Your task to perform on an android device: turn off notifications in google photos Image 0: 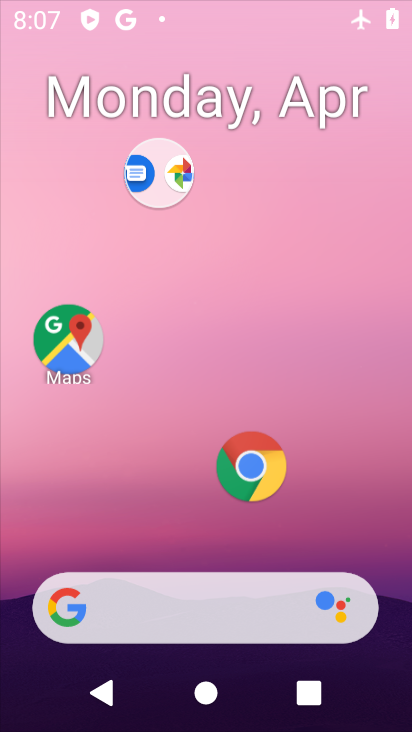
Step 0: click (178, 171)
Your task to perform on an android device: turn off notifications in google photos Image 1: 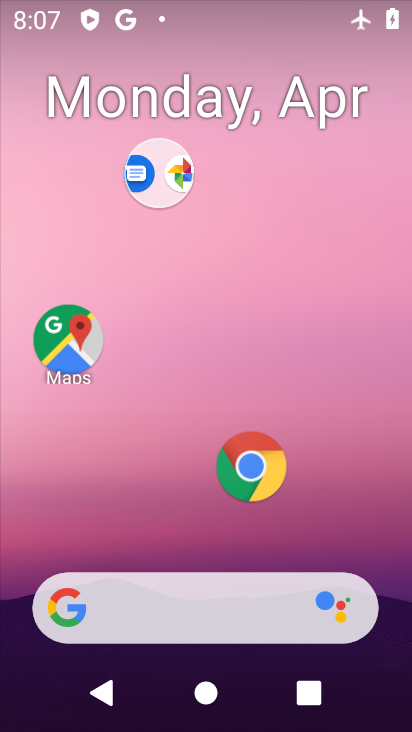
Step 1: drag from (214, 563) to (187, 140)
Your task to perform on an android device: turn off notifications in google photos Image 2: 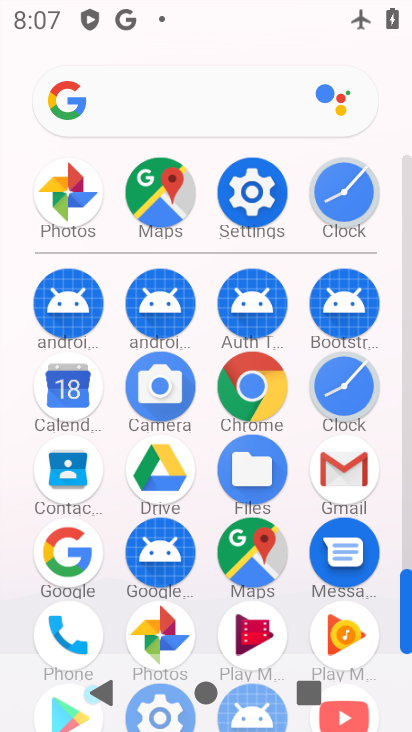
Step 2: drag from (205, 622) to (191, 277)
Your task to perform on an android device: turn off notifications in google photos Image 3: 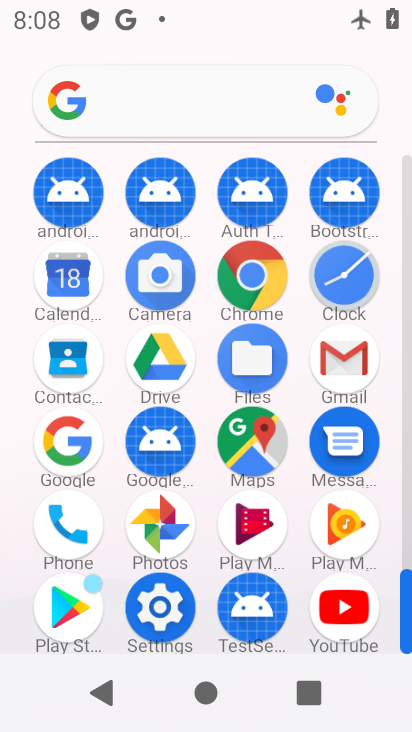
Step 3: click (172, 519)
Your task to perform on an android device: turn off notifications in google photos Image 4: 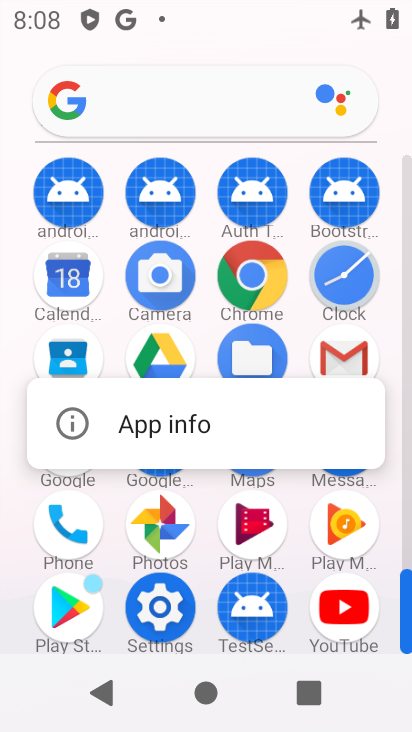
Step 4: click (194, 437)
Your task to perform on an android device: turn off notifications in google photos Image 5: 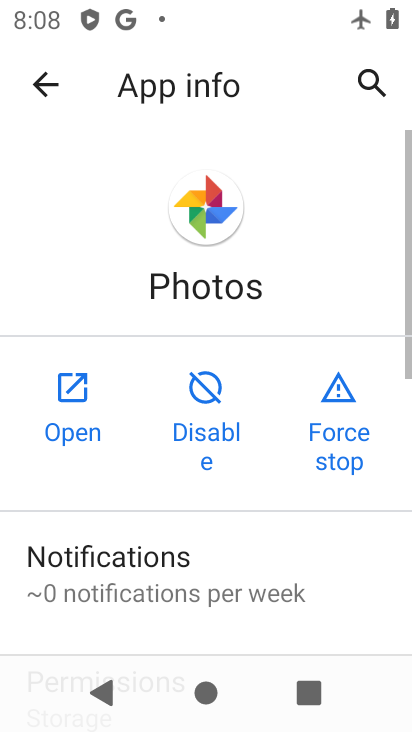
Step 5: click (29, 416)
Your task to perform on an android device: turn off notifications in google photos Image 6: 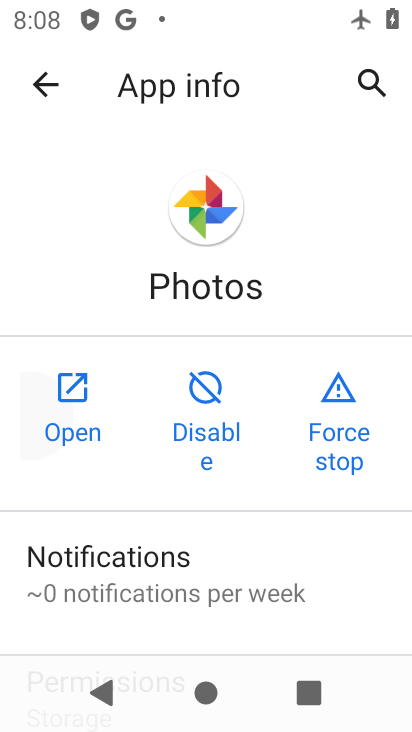
Step 6: click (84, 409)
Your task to perform on an android device: turn off notifications in google photos Image 7: 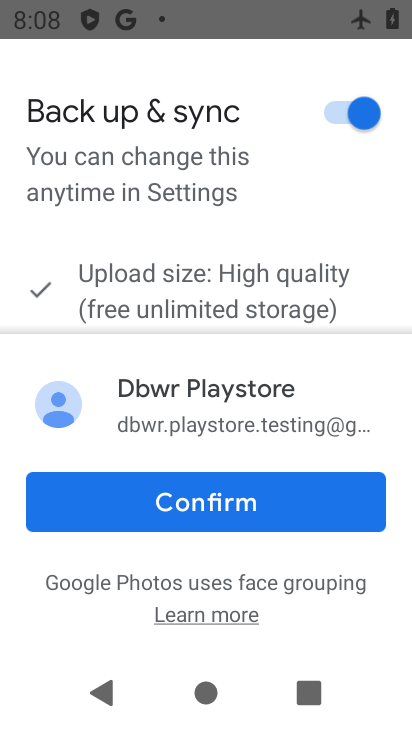
Step 7: click (202, 494)
Your task to perform on an android device: turn off notifications in google photos Image 8: 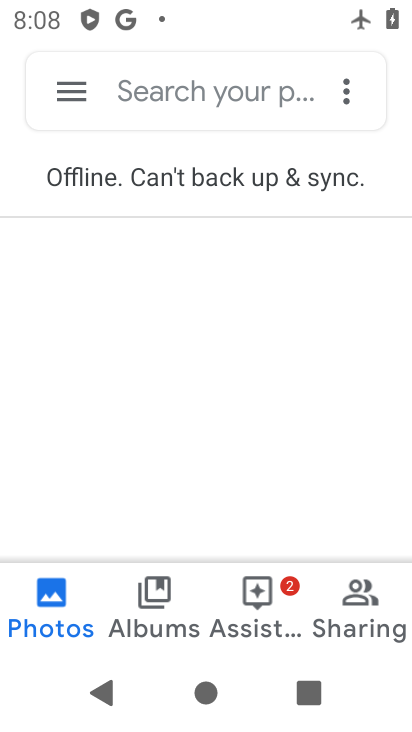
Step 8: click (76, 95)
Your task to perform on an android device: turn off notifications in google photos Image 9: 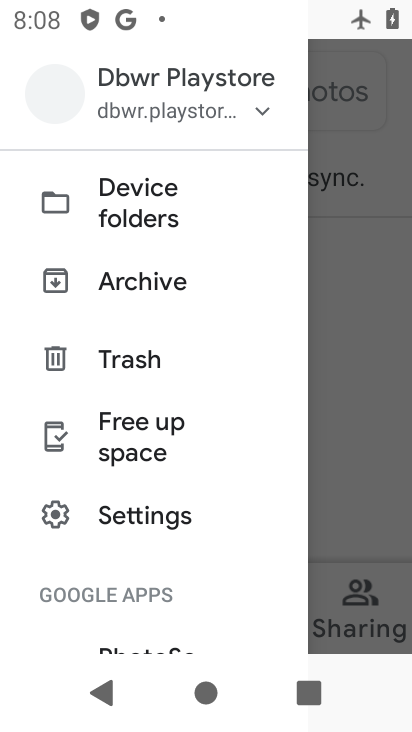
Step 9: drag from (158, 602) to (161, 335)
Your task to perform on an android device: turn off notifications in google photos Image 10: 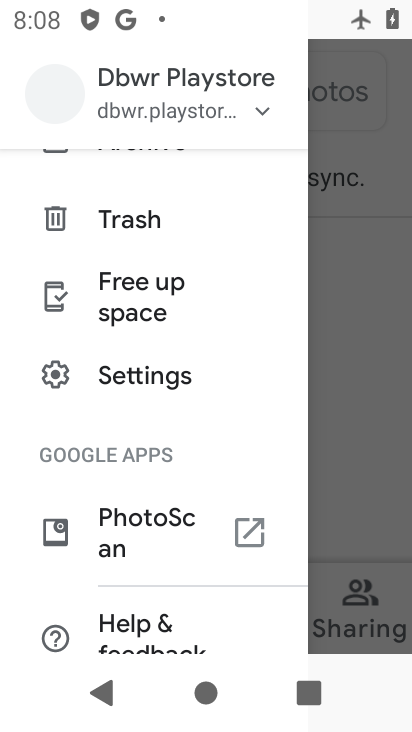
Step 10: click (109, 358)
Your task to perform on an android device: turn off notifications in google photos Image 11: 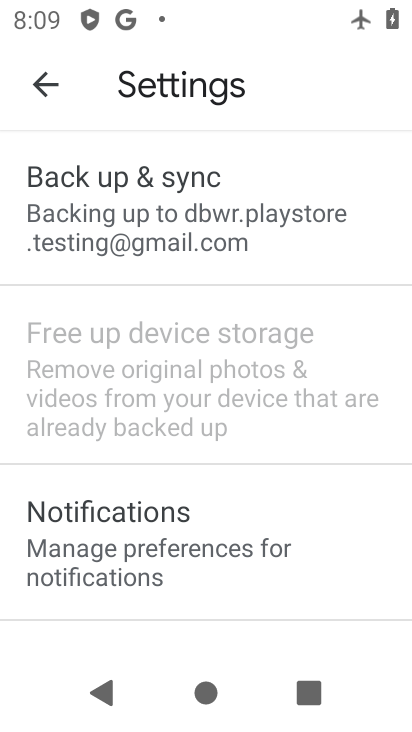
Step 11: click (159, 497)
Your task to perform on an android device: turn off notifications in google photos Image 12: 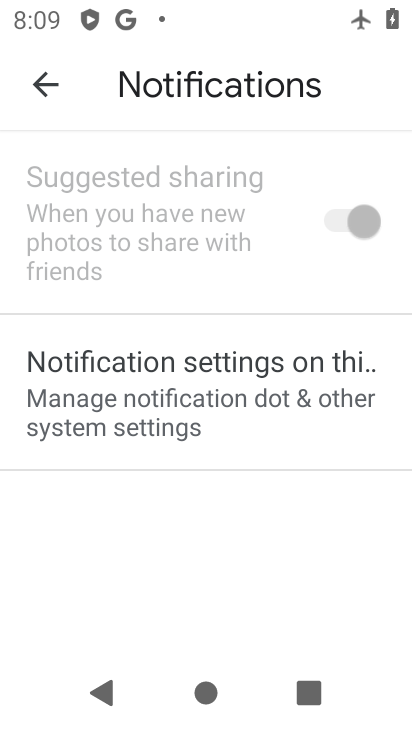
Step 12: click (156, 406)
Your task to perform on an android device: turn off notifications in google photos Image 13: 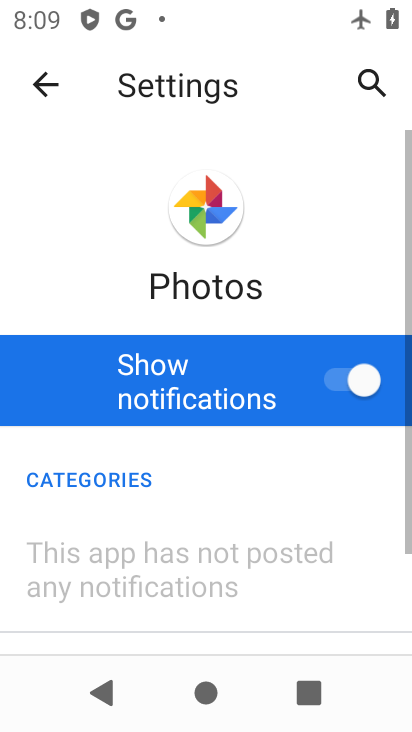
Step 13: click (348, 380)
Your task to perform on an android device: turn off notifications in google photos Image 14: 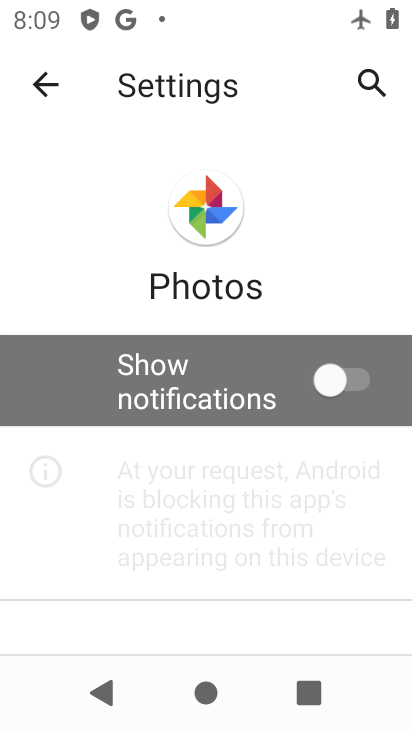
Step 14: task complete